Your task to perform on an android device: When is my next appointment? Image 0: 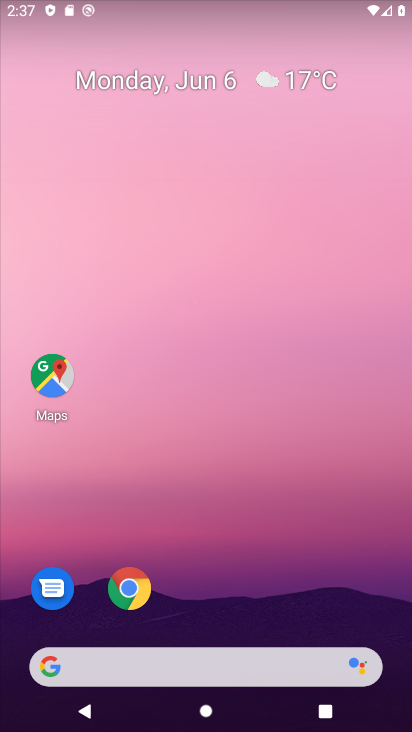
Step 0: drag from (244, 667) to (235, 31)
Your task to perform on an android device: When is my next appointment? Image 1: 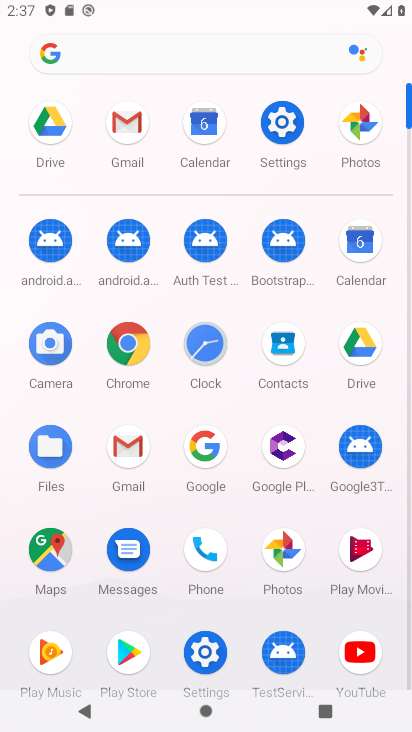
Step 1: click (347, 252)
Your task to perform on an android device: When is my next appointment? Image 2: 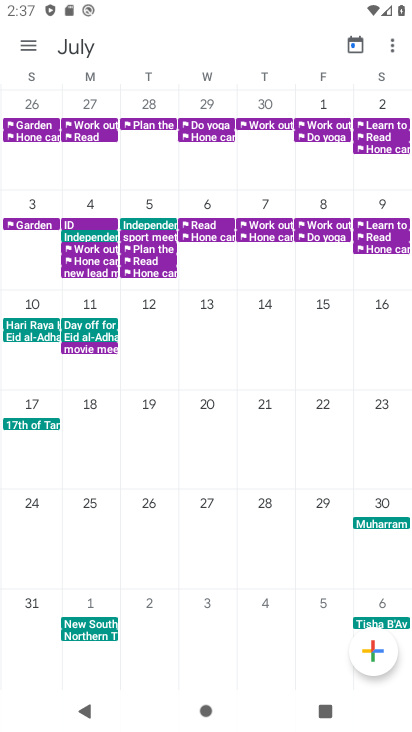
Step 2: click (43, 43)
Your task to perform on an android device: When is my next appointment? Image 3: 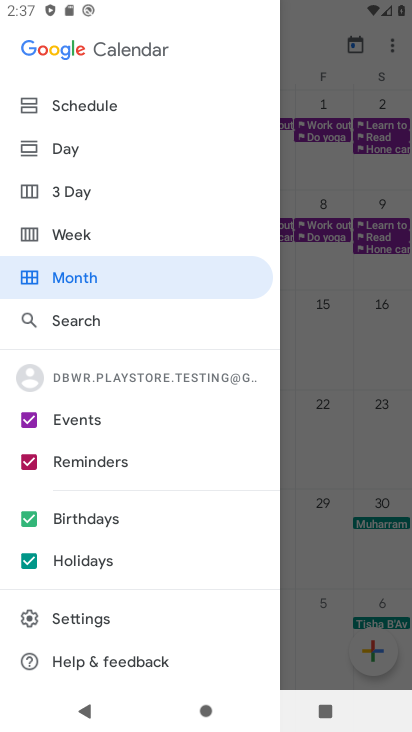
Step 3: click (105, 106)
Your task to perform on an android device: When is my next appointment? Image 4: 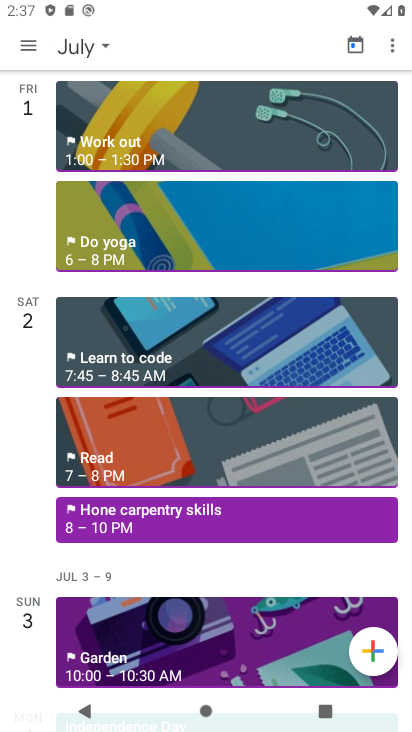
Step 4: click (96, 58)
Your task to perform on an android device: When is my next appointment? Image 5: 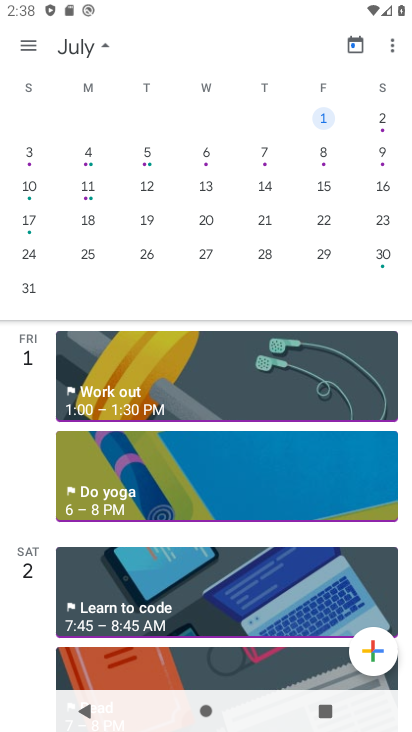
Step 5: drag from (70, 216) to (376, 148)
Your task to perform on an android device: When is my next appointment? Image 6: 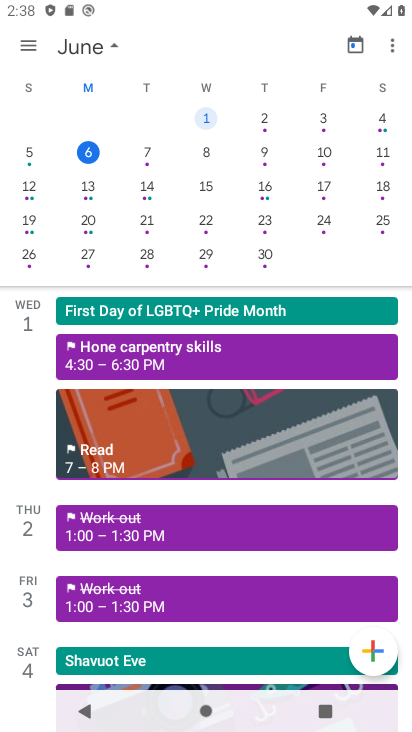
Step 6: click (90, 151)
Your task to perform on an android device: When is my next appointment? Image 7: 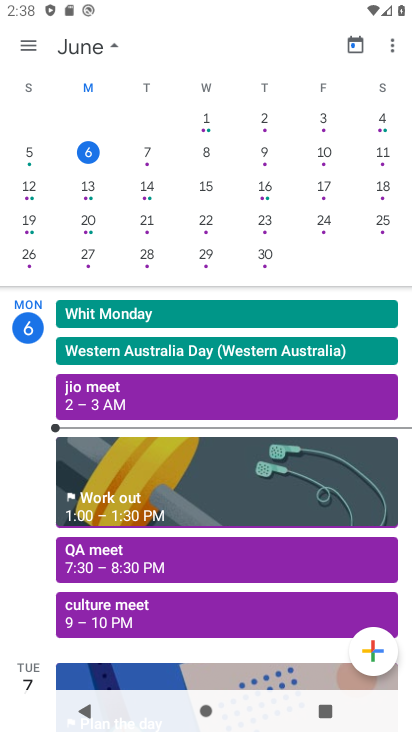
Step 7: task complete